Your task to perform on an android device: check google app version Image 0: 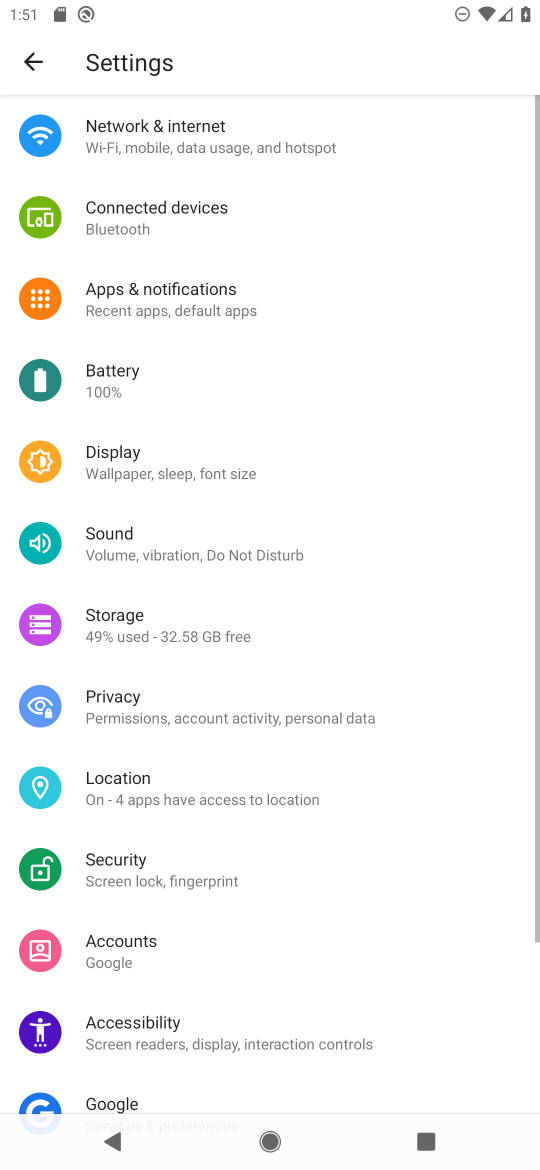
Step 0: drag from (282, 921) to (310, 162)
Your task to perform on an android device: check google app version Image 1: 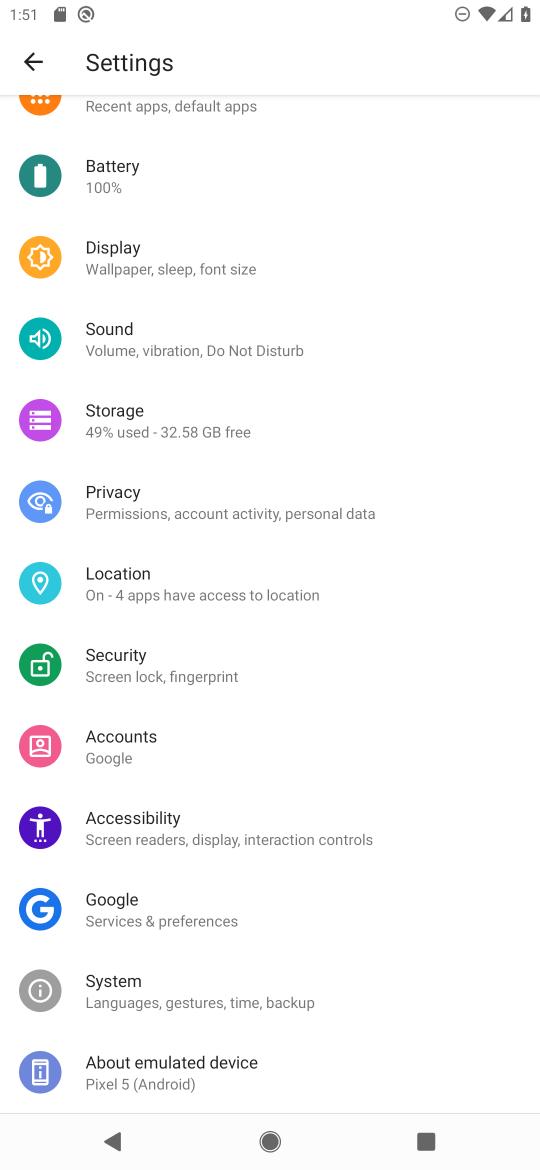
Step 1: click (181, 1075)
Your task to perform on an android device: check google app version Image 2: 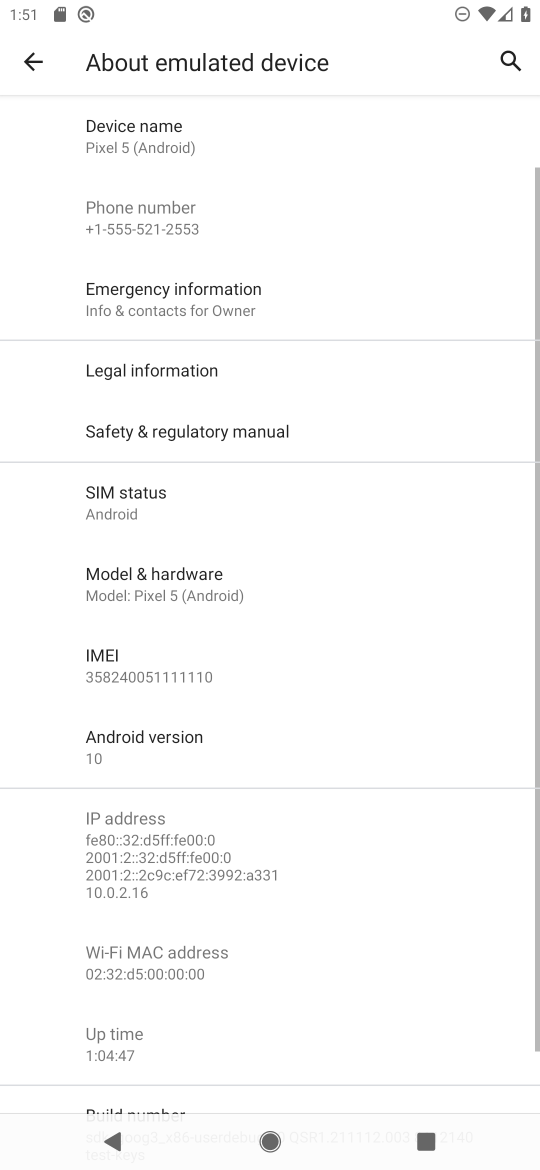
Step 2: drag from (179, 996) to (322, 257)
Your task to perform on an android device: check google app version Image 3: 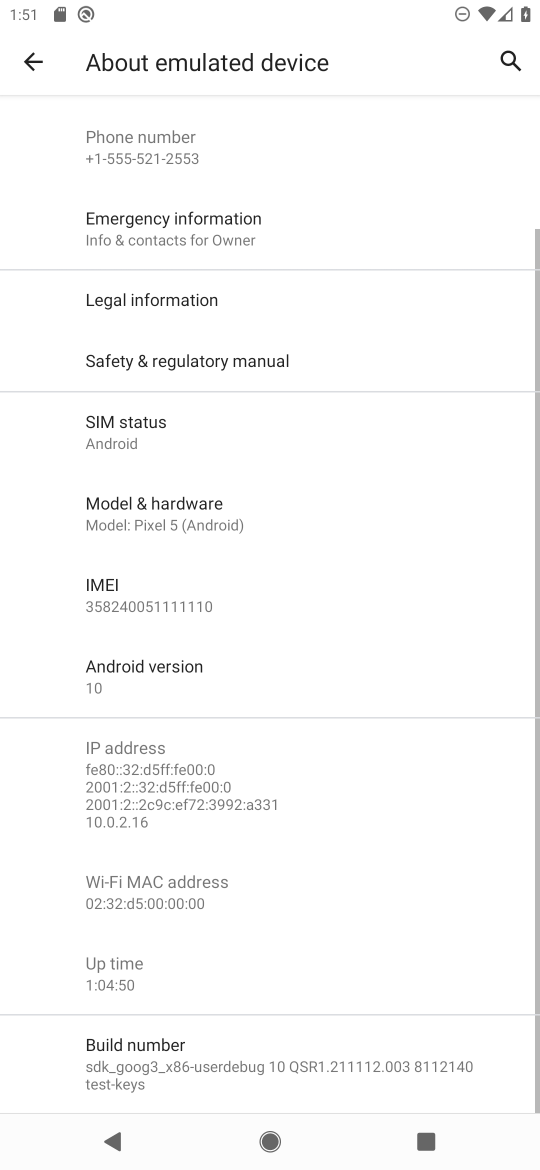
Step 3: click (178, 700)
Your task to perform on an android device: check google app version Image 4: 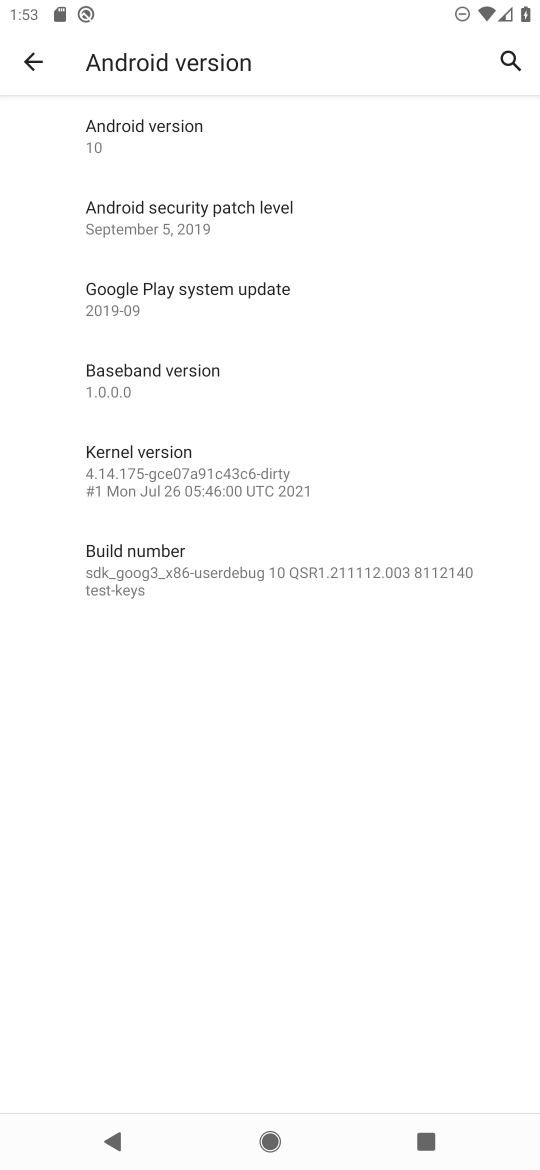
Step 4: task complete